Your task to perform on an android device: Set the phone to "Do not disturb". Image 0: 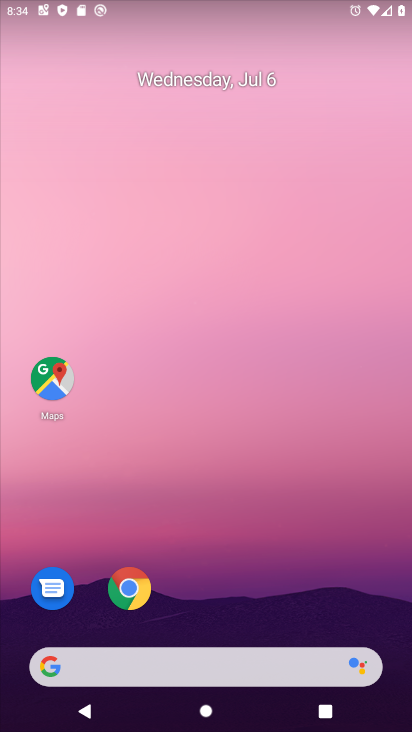
Step 0: drag from (199, 594) to (194, 199)
Your task to perform on an android device: Set the phone to "Do not disturb". Image 1: 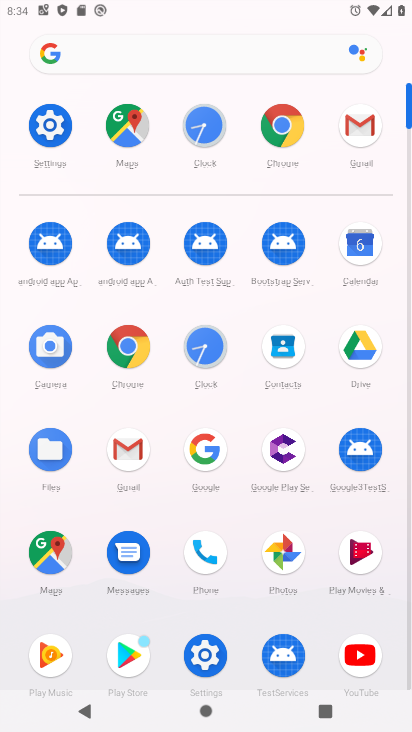
Step 1: drag from (177, 33) to (186, 658)
Your task to perform on an android device: Set the phone to "Do not disturb". Image 2: 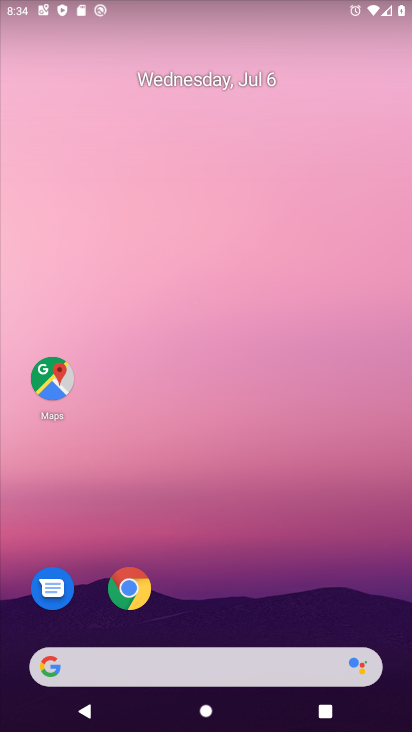
Step 2: drag from (166, 0) to (219, 461)
Your task to perform on an android device: Set the phone to "Do not disturb". Image 3: 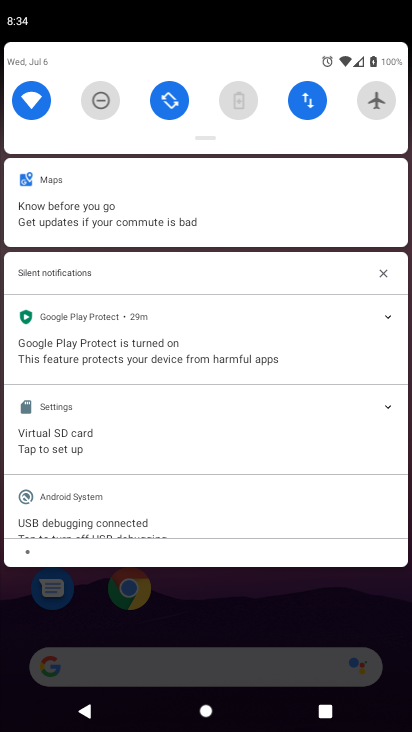
Step 3: drag from (172, 10) to (204, 399)
Your task to perform on an android device: Set the phone to "Do not disturb". Image 4: 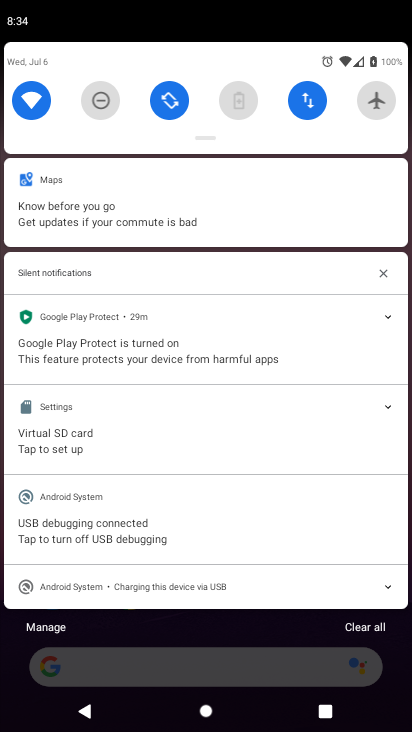
Step 4: click (88, 91)
Your task to perform on an android device: Set the phone to "Do not disturb". Image 5: 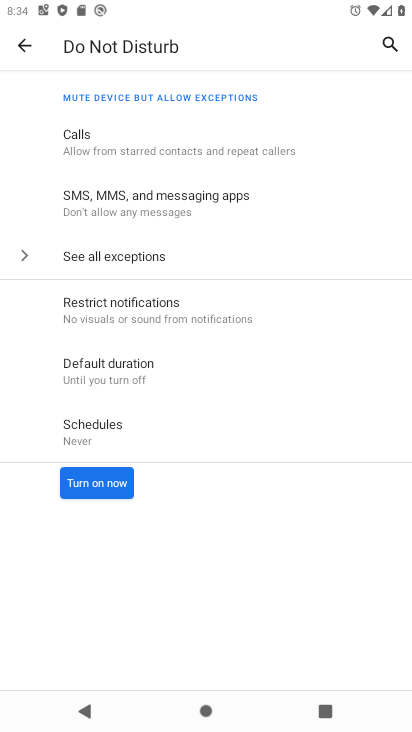
Step 5: click (71, 489)
Your task to perform on an android device: Set the phone to "Do not disturb". Image 6: 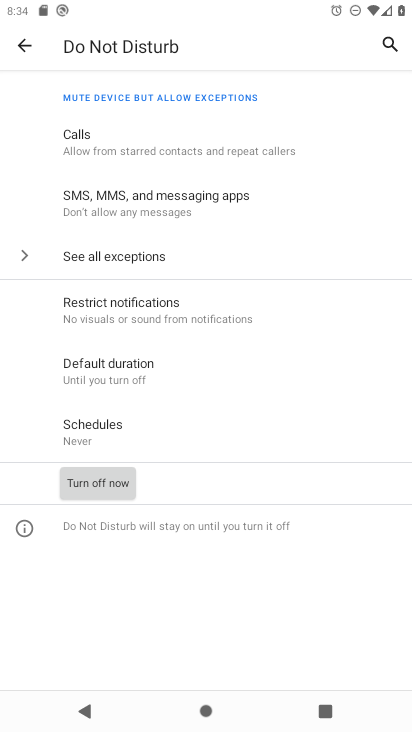
Step 6: task complete